Your task to perform on an android device: Open sound settings Image 0: 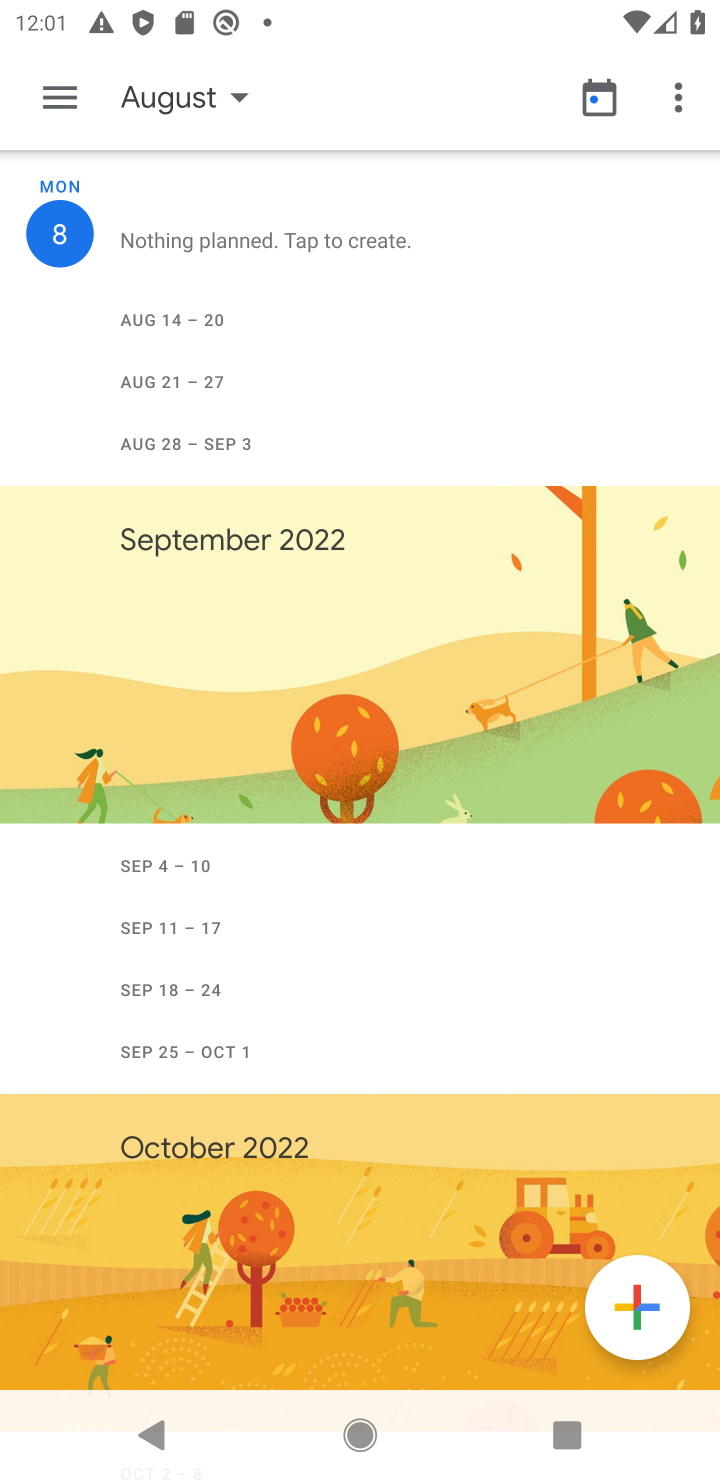
Step 0: press home button
Your task to perform on an android device: Open sound settings Image 1: 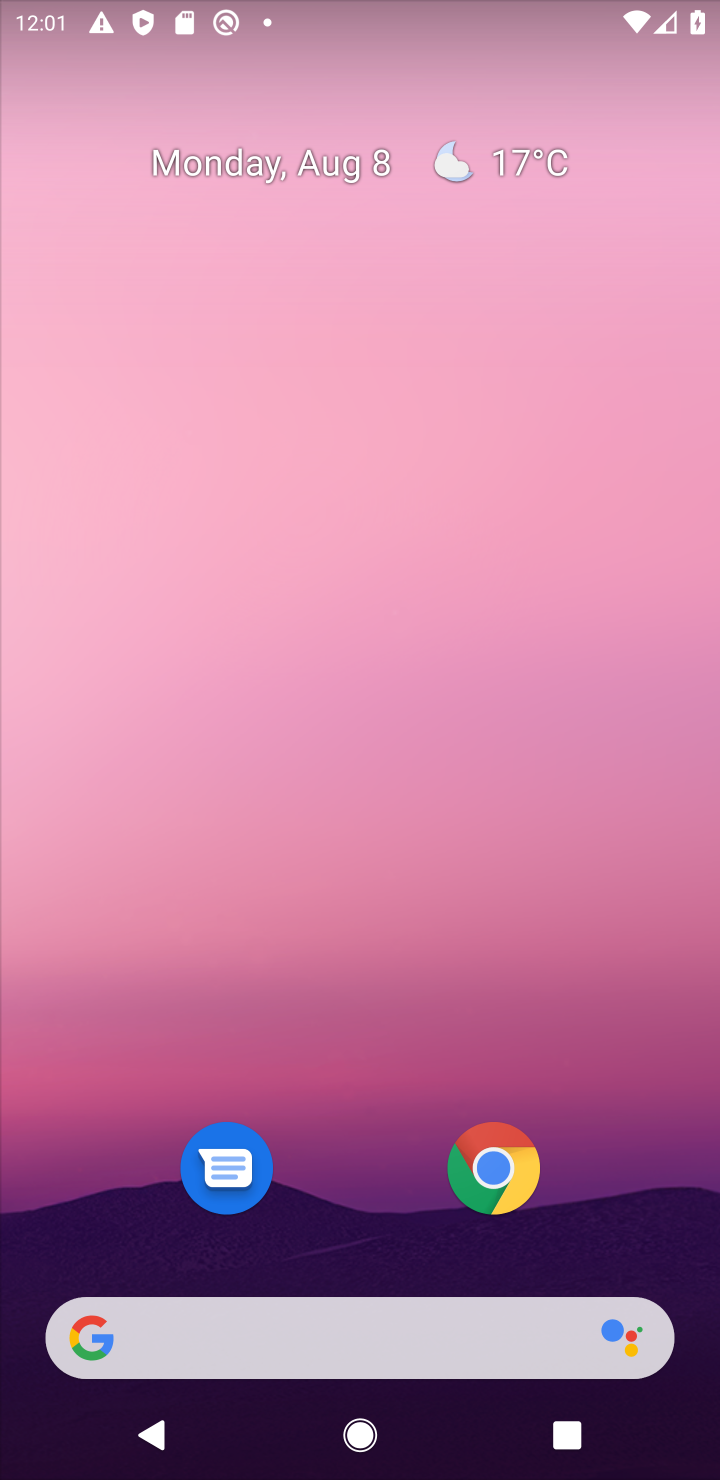
Step 1: task complete